Your task to perform on an android device: turn on location history Image 0: 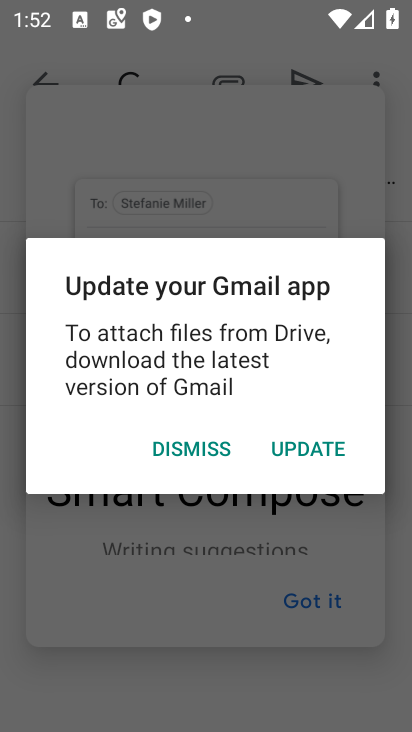
Step 0: press home button
Your task to perform on an android device: turn on location history Image 1: 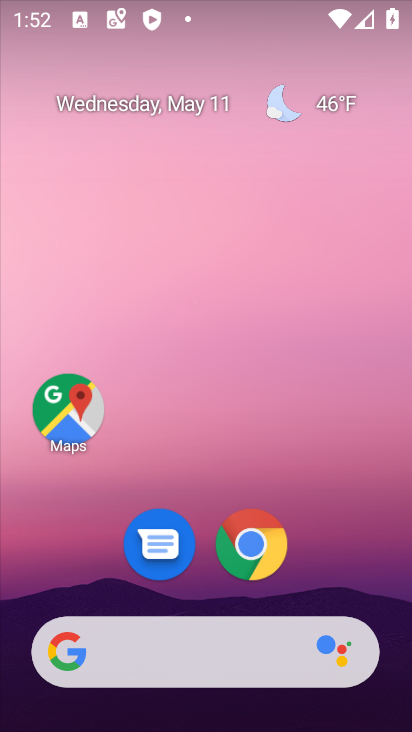
Step 1: click (69, 410)
Your task to perform on an android device: turn on location history Image 2: 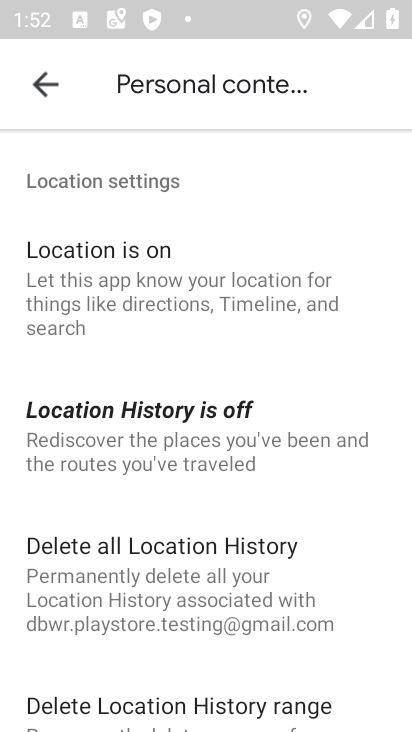
Step 2: click (69, 410)
Your task to perform on an android device: turn on location history Image 3: 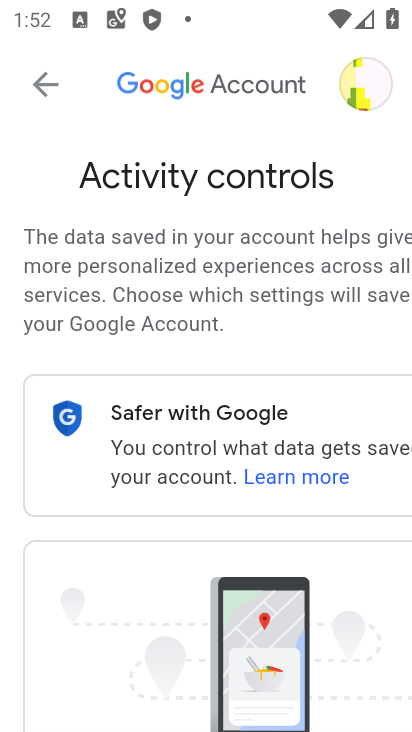
Step 3: task complete